Your task to perform on an android device: clear history in the chrome app Image 0: 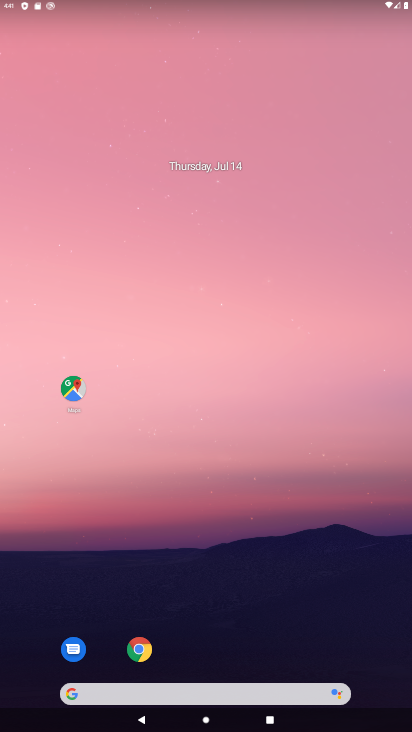
Step 0: drag from (277, 547) to (261, 64)
Your task to perform on an android device: clear history in the chrome app Image 1: 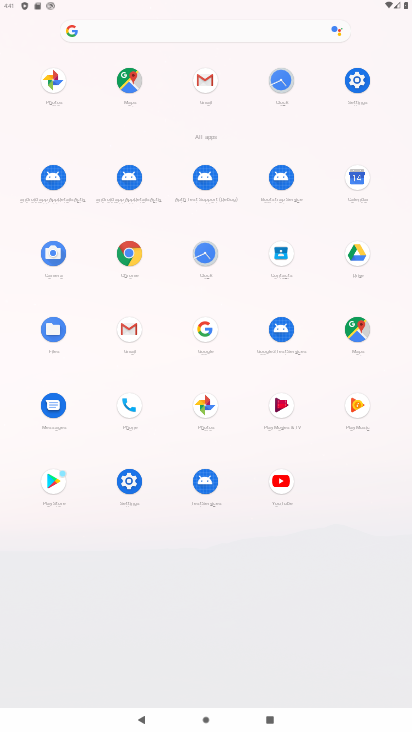
Step 1: click (125, 260)
Your task to perform on an android device: clear history in the chrome app Image 2: 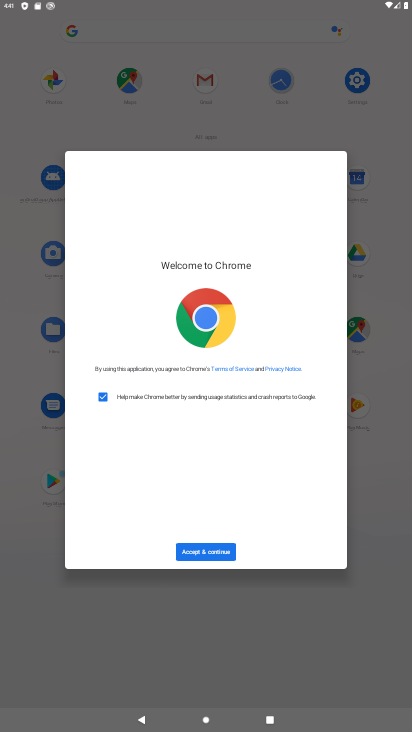
Step 2: click (198, 541)
Your task to perform on an android device: clear history in the chrome app Image 3: 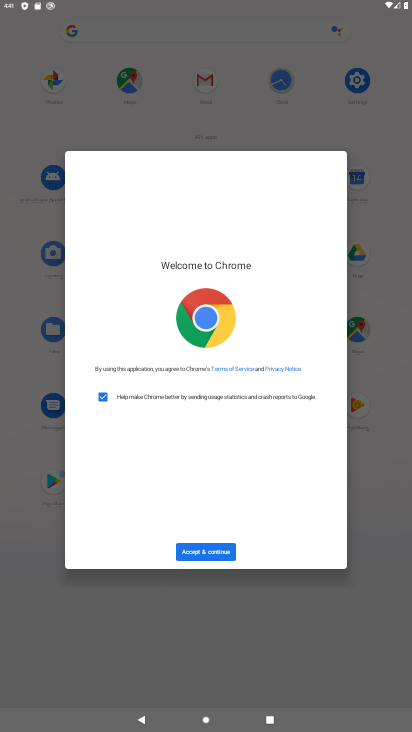
Step 3: click (198, 552)
Your task to perform on an android device: clear history in the chrome app Image 4: 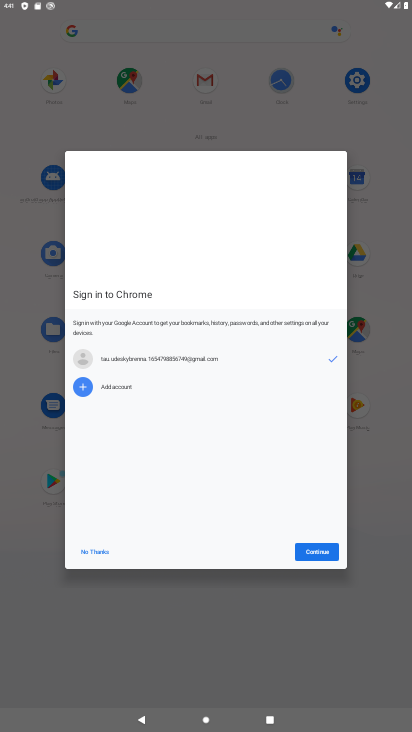
Step 4: click (94, 552)
Your task to perform on an android device: clear history in the chrome app Image 5: 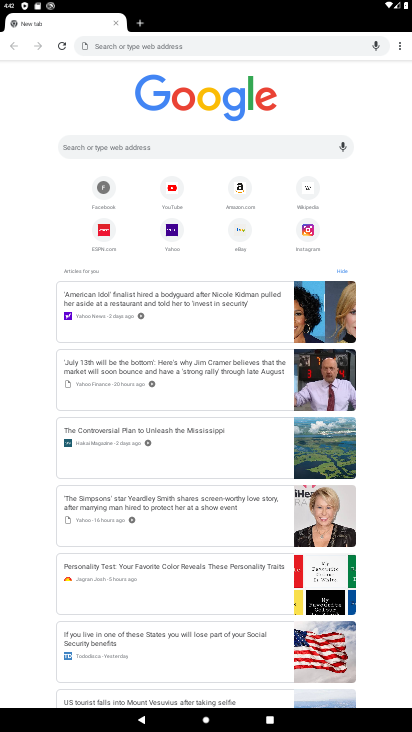
Step 5: task complete